Your task to perform on an android device: visit the assistant section in the google photos Image 0: 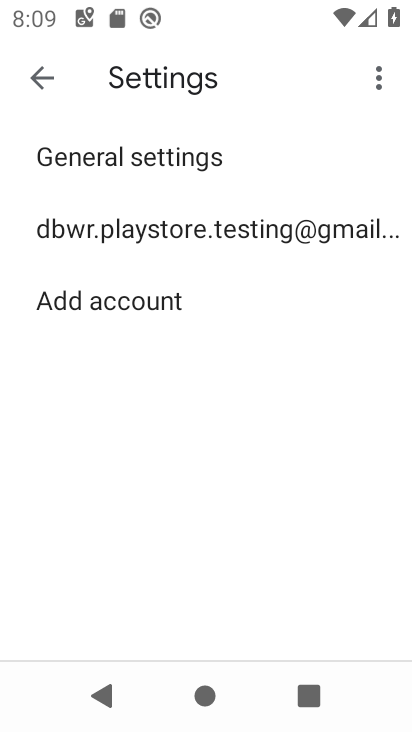
Step 0: press back button
Your task to perform on an android device: visit the assistant section in the google photos Image 1: 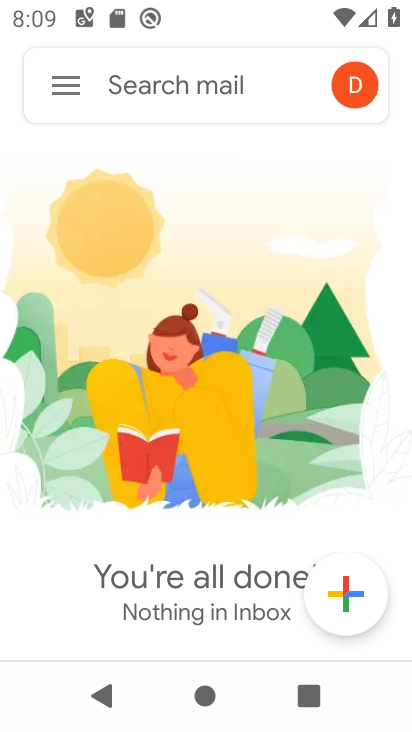
Step 1: press back button
Your task to perform on an android device: visit the assistant section in the google photos Image 2: 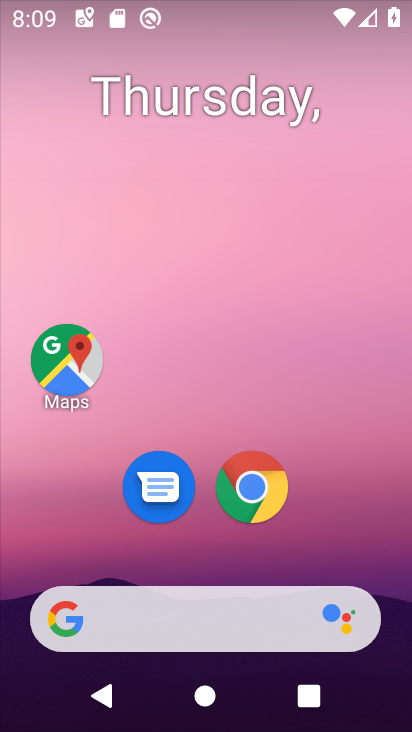
Step 2: drag from (183, 574) to (286, 22)
Your task to perform on an android device: visit the assistant section in the google photos Image 3: 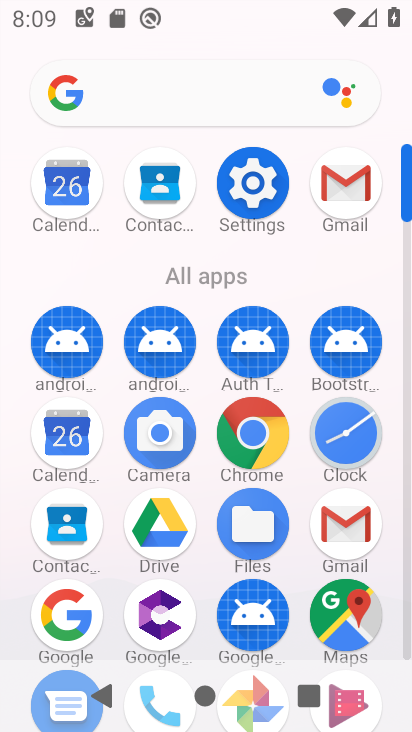
Step 3: drag from (225, 606) to (272, 223)
Your task to perform on an android device: visit the assistant section in the google photos Image 4: 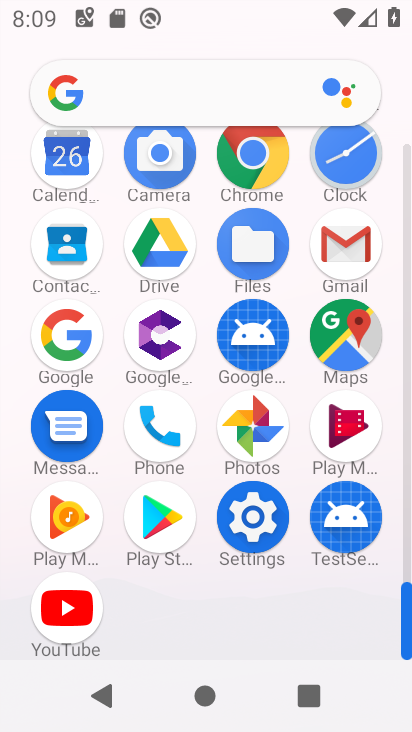
Step 4: click (257, 432)
Your task to perform on an android device: visit the assistant section in the google photos Image 5: 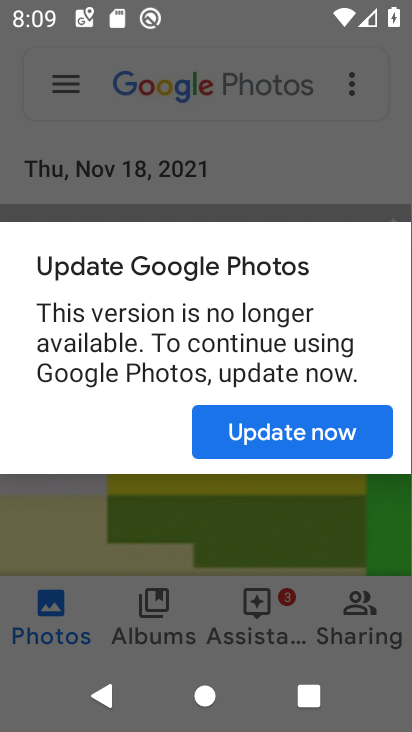
Step 5: click (286, 430)
Your task to perform on an android device: visit the assistant section in the google photos Image 6: 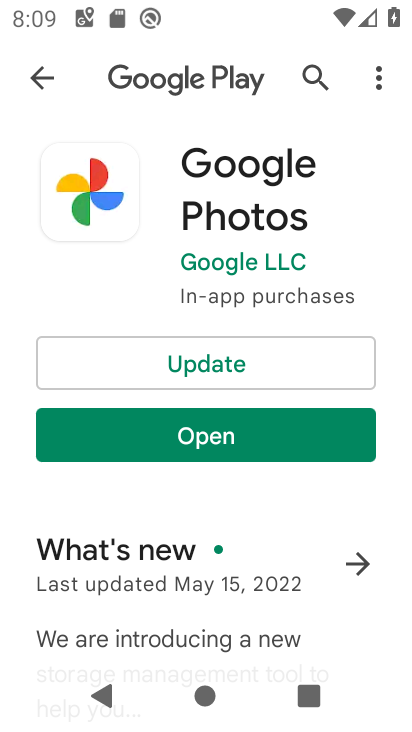
Step 6: click (227, 431)
Your task to perform on an android device: visit the assistant section in the google photos Image 7: 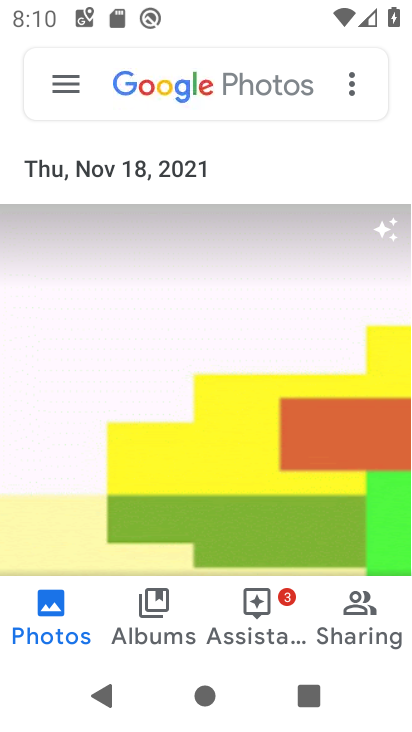
Step 7: click (261, 620)
Your task to perform on an android device: visit the assistant section in the google photos Image 8: 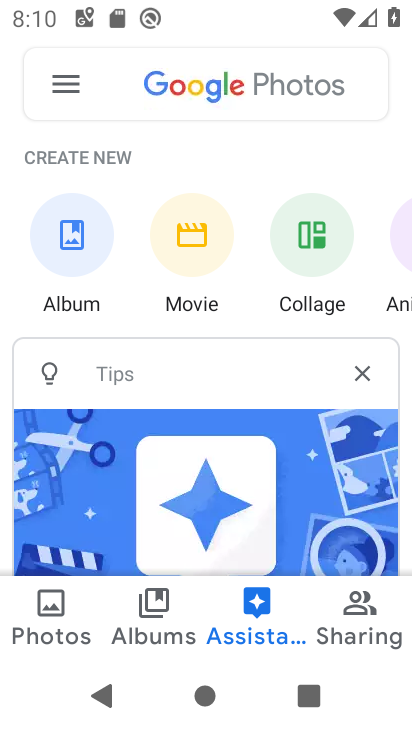
Step 8: task complete